Your task to perform on an android device: choose inbox layout in the gmail app Image 0: 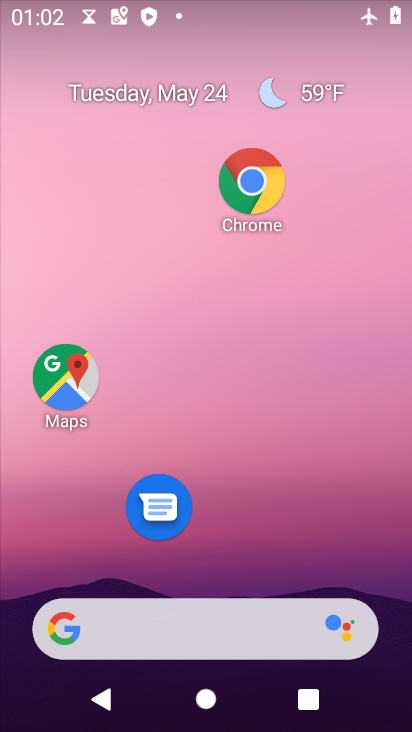
Step 0: drag from (321, 553) to (370, 212)
Your task to perform on an android device: choose inbox layout in the gmail app Image 1: 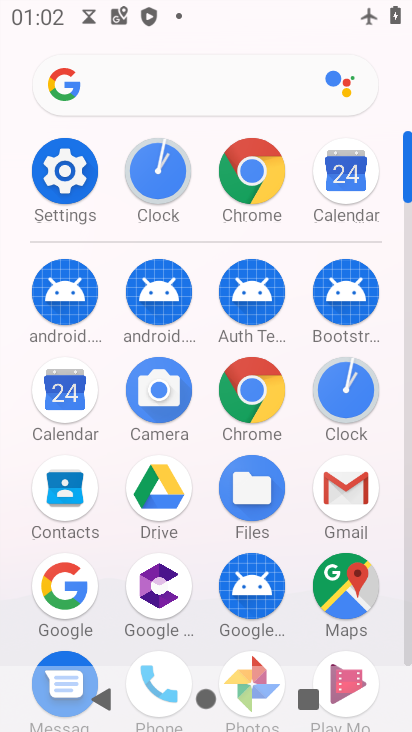
Step 1: click (343, 477)
Your task to perform on an android device: choose inbox layout in the gmail app Image 2: 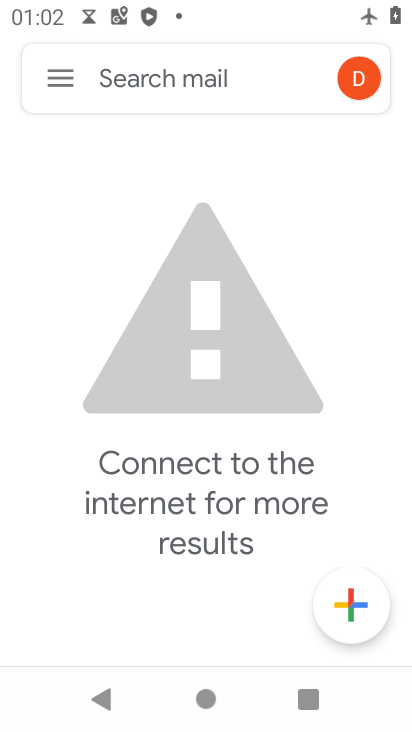
Step 2: click (59, 75)
Your task to perform on an android device: choose inbox layout in the gmail app Image 3: 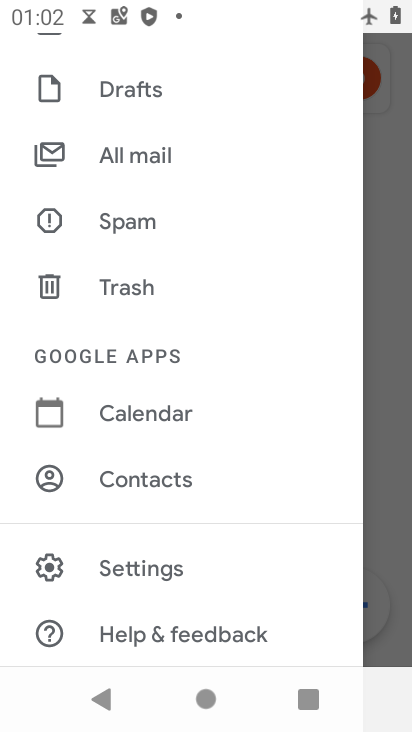
Step 3: click (161, 558)
Your task to perform on an android device: choose inbox layout in the gmail app Image 4: 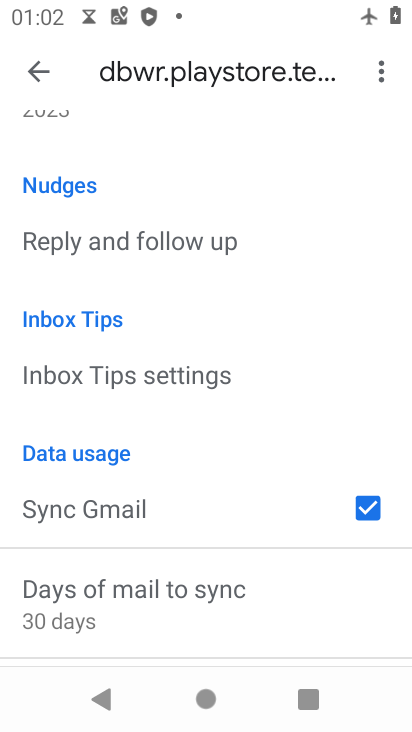
Step 4: drag from (247, 187) to (250, 660)
Your task to perform on an android device: choose inbox layout in the gmail app Image 5: 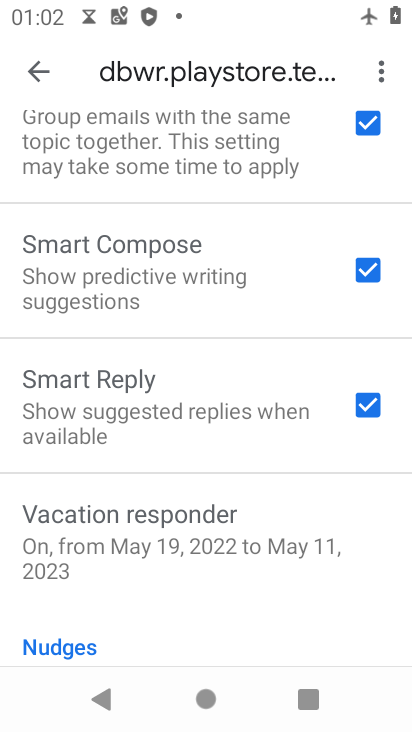
Step 5: drag from (152, 181) to (191, 674)
Your task to perform on an android device: choose inbox layout in the gmail app Image 6: 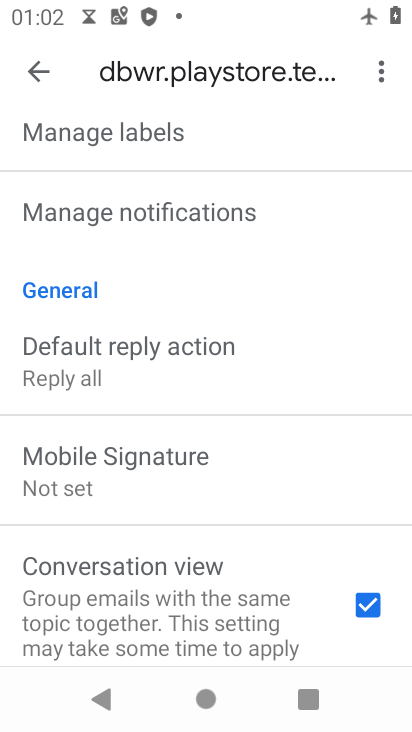
Step 6: drag from (194, 174) to (195, 617)
Your task to perform on an android device: choose inbox layout in the gmail app Image 7: 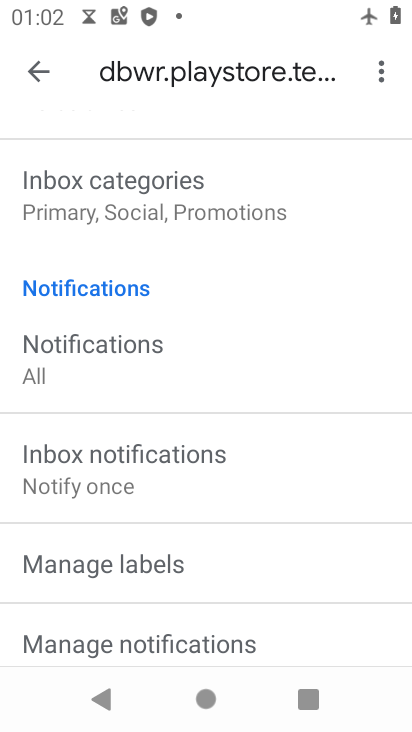
Step 7: click (135, 203)
Your task to perform on an android device: choose inbox layout in the gmail app Image 8: 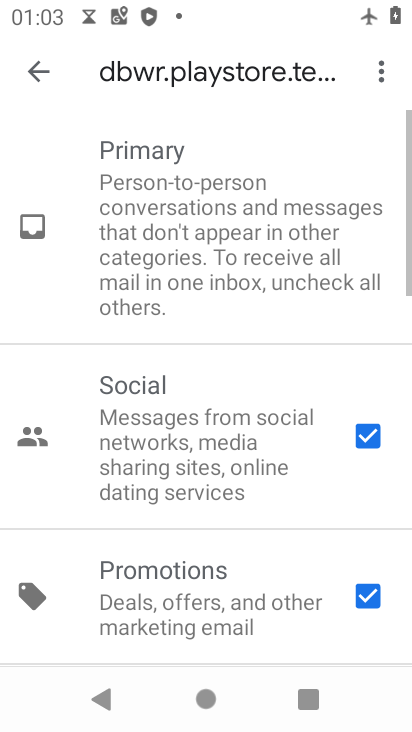
Step 8: click (34, 66)
Your task to perform on an android device: choose inbox layout in the gmail app Image 9: 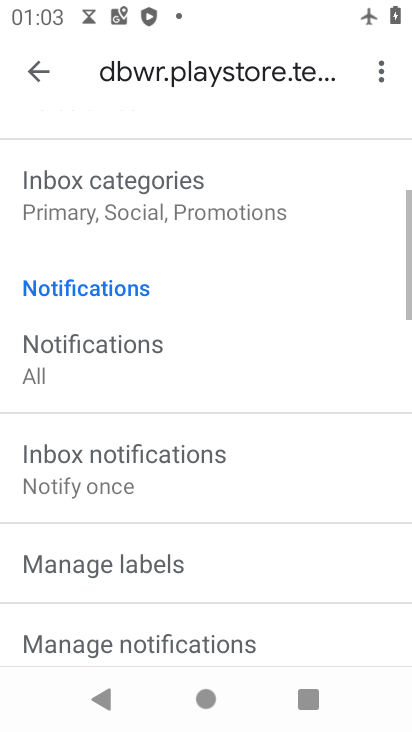
Step 9: drag from (201, 166) to (206, 605)
Your task to perform on an android device: choose inbox layout in the gmail app Image 10: 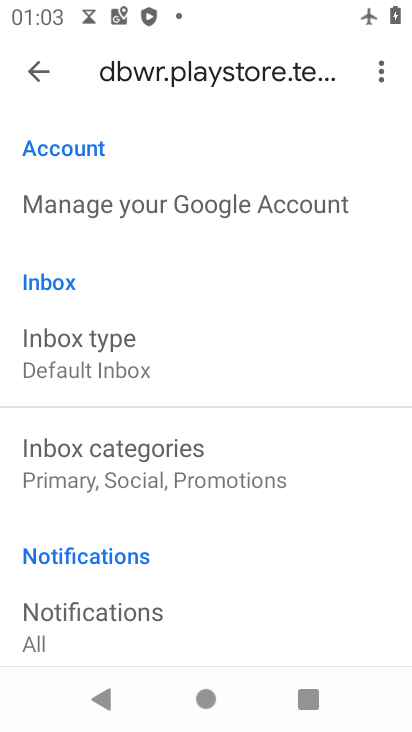
Step 10: click (121, 335)
Your task to perform on an android device: choose inbox layout in the gmail app Image 11: 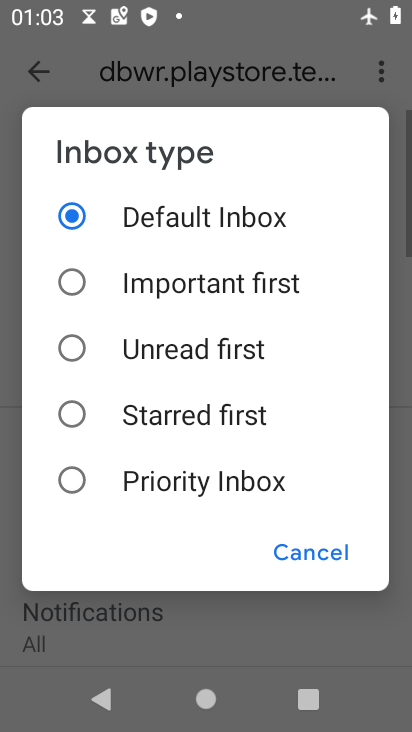
Step 11: click (124, 357)
Your task to perform on an android device: choose inbox layout in the gmail app Image 12: 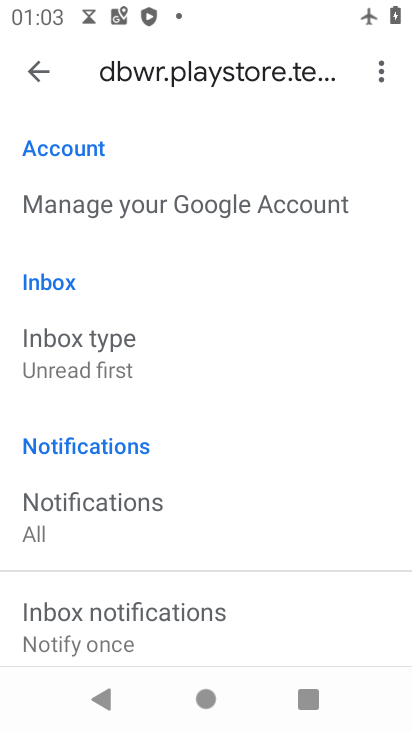
Step 12: task complete